Your task to perform on an android device: Open Maps and search for coffee Image 0: 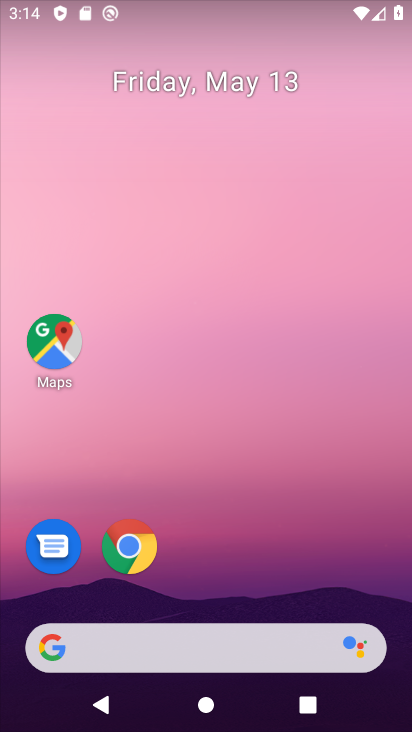
Step 0: click (57, 329)
Your task to perform on an android device: Open Maps and search for coffee Image 1: 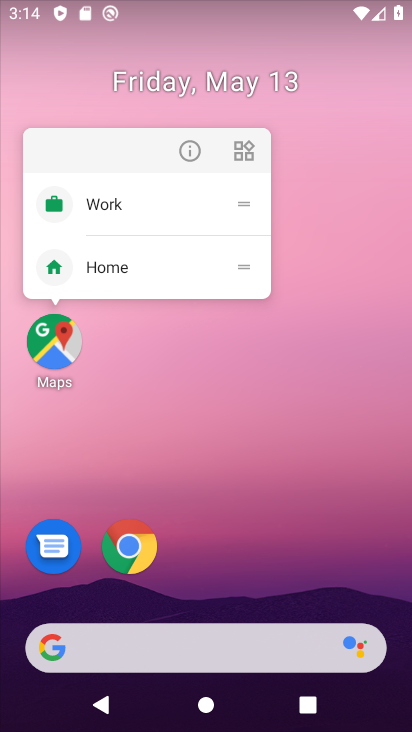
Step 1: click (55, 336)
Your task to perform on an android device: Open Maps and search for coffee Image 2: 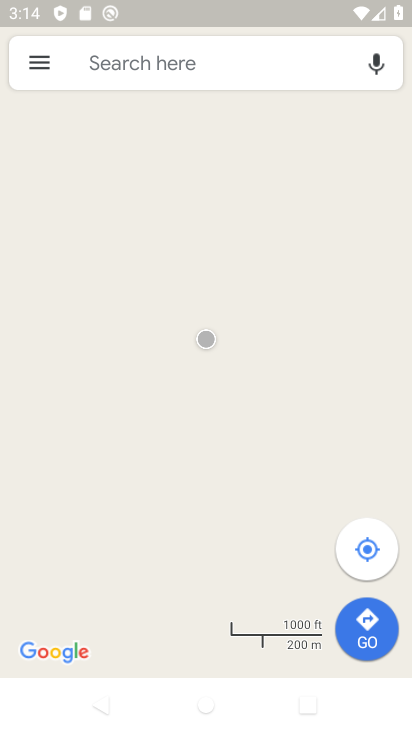
Step 2: click (164, 71)
Your task to perform on an android device: Open Maps and search for coffee Image 3: 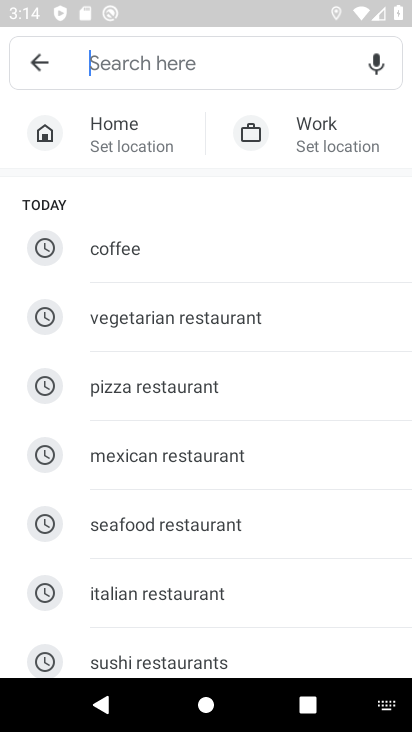
Step 3: type "Coffee"
Your task to perform on an android device: Open Maps and search for coffee Image 4: 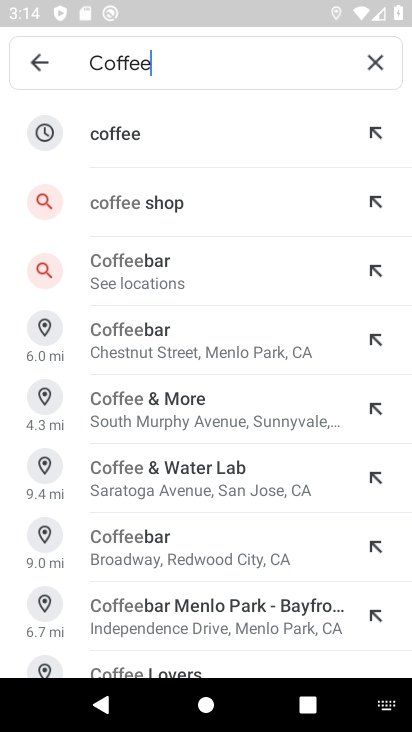
Step 4: click (221, 136)
Your task to perform on an android device: Open Maps and search for coffee Image 5: 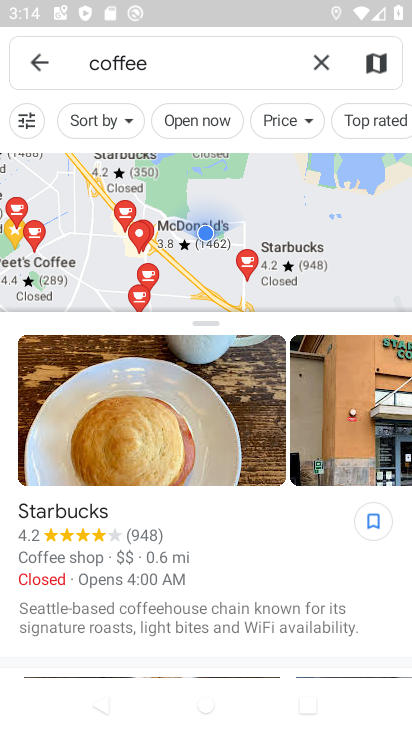
Step 5: task complete